Your task to perform on an android device: Check the news Image 0: 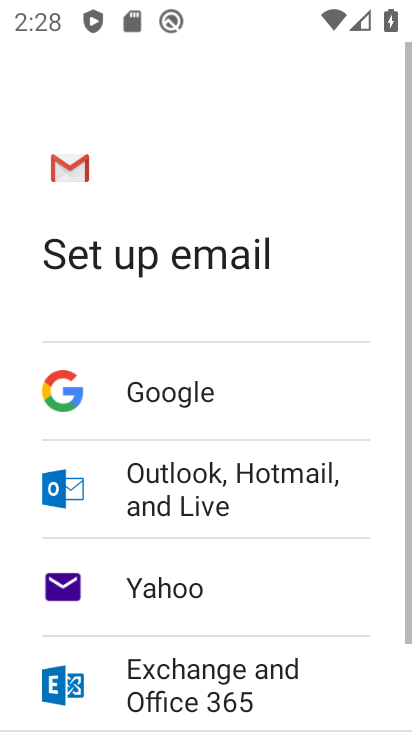
Step 0: press home button
Your task to perform on an android device: Check the news Image 1: 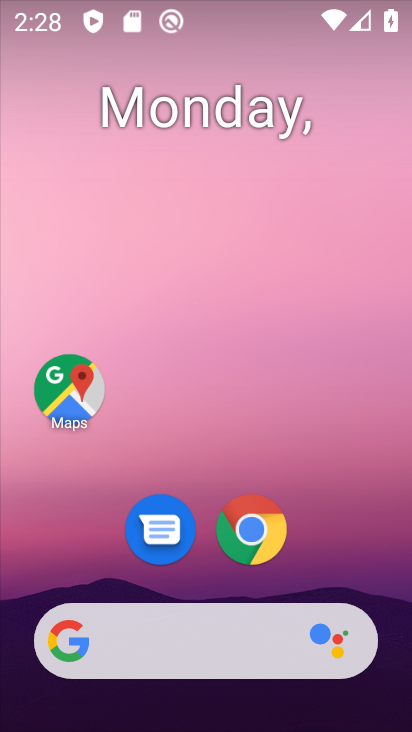
Step 1: drag from (388, 556) to (327, 116)
Your task to perform on an android device: Check the news Image 2: 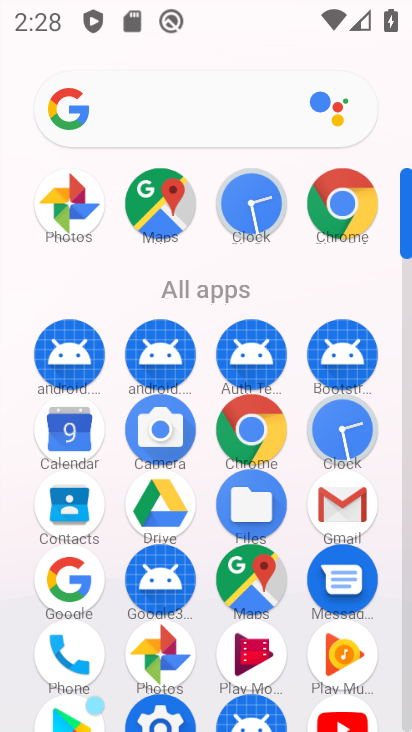
Step 2: click (274, 449)
Your task to perform on an android device: Check the news Image 3: 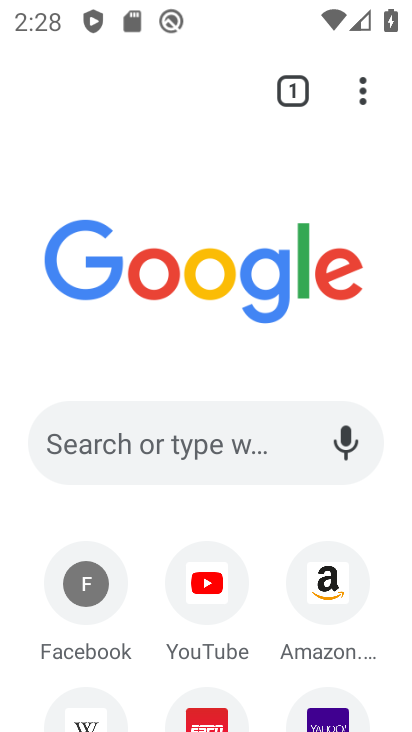
Step 3: click (252, 447)
Your task to perform on an android device: Check the news Image 4: 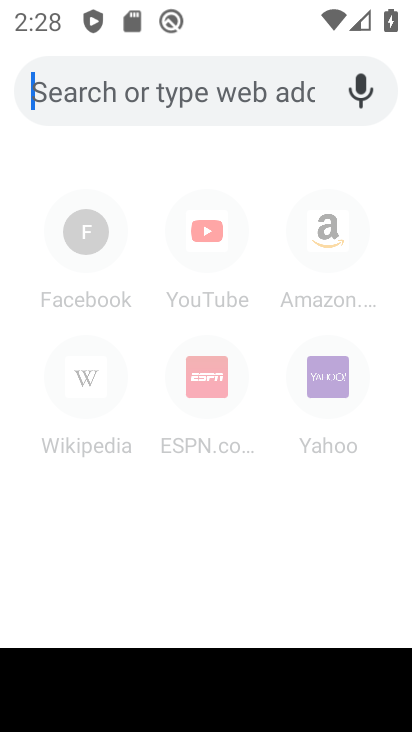
Step 4: type "check the news"
Your task to perform on an android device: Check the news Image 5: 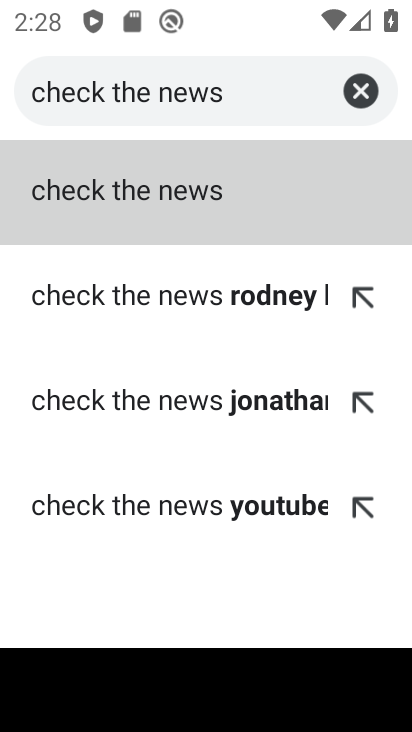
Step 5: click (104, 189)
Your task to perform on an android device: Check the news Image 6: 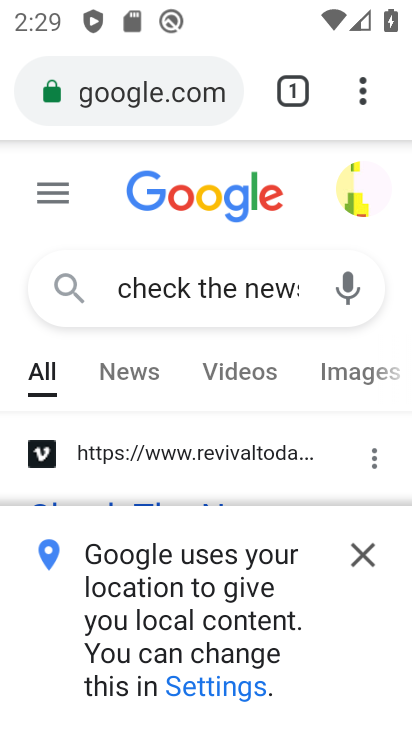
Step 6: click (357, 556)
Your task to perform on an android device: Check the news Image 7: 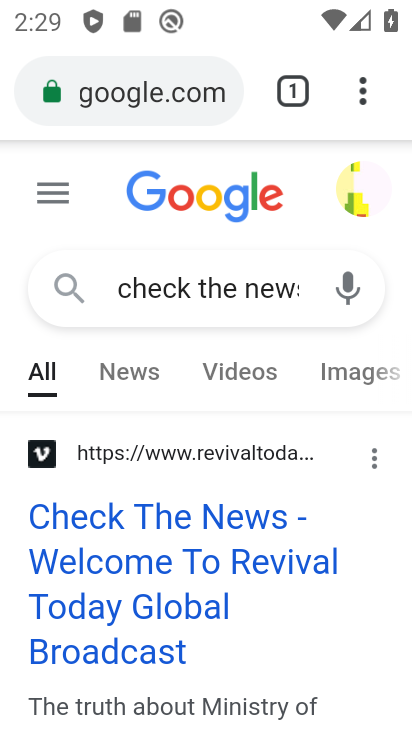
Step 7: task complete